Your task to perform on an android device: install app "Nova Launcher" Image 0: 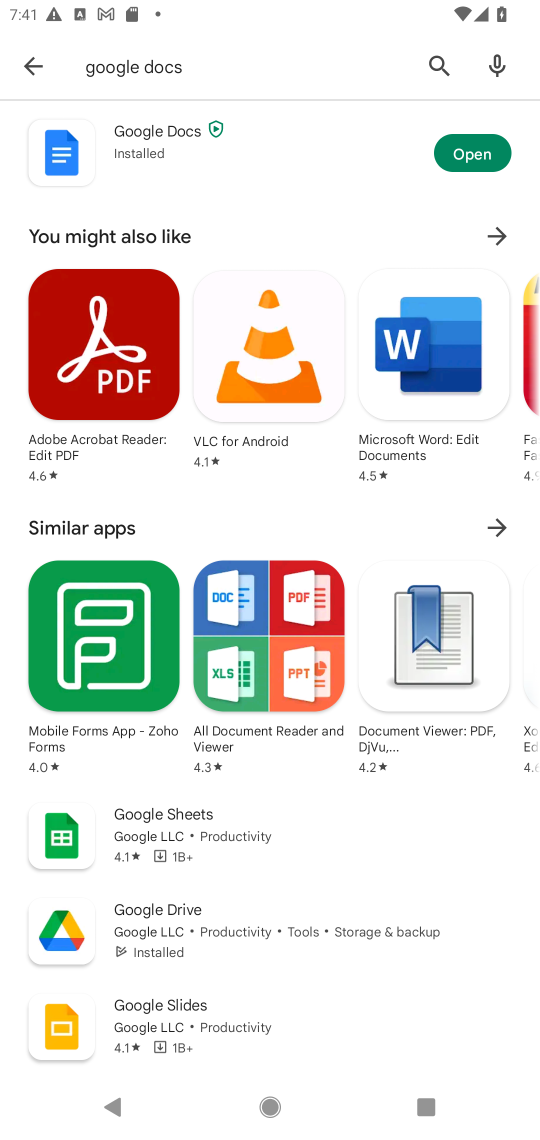
Step 0: click (432, 71)
Your task to perform on an android device: install app "Nova Launcher" Image 1: 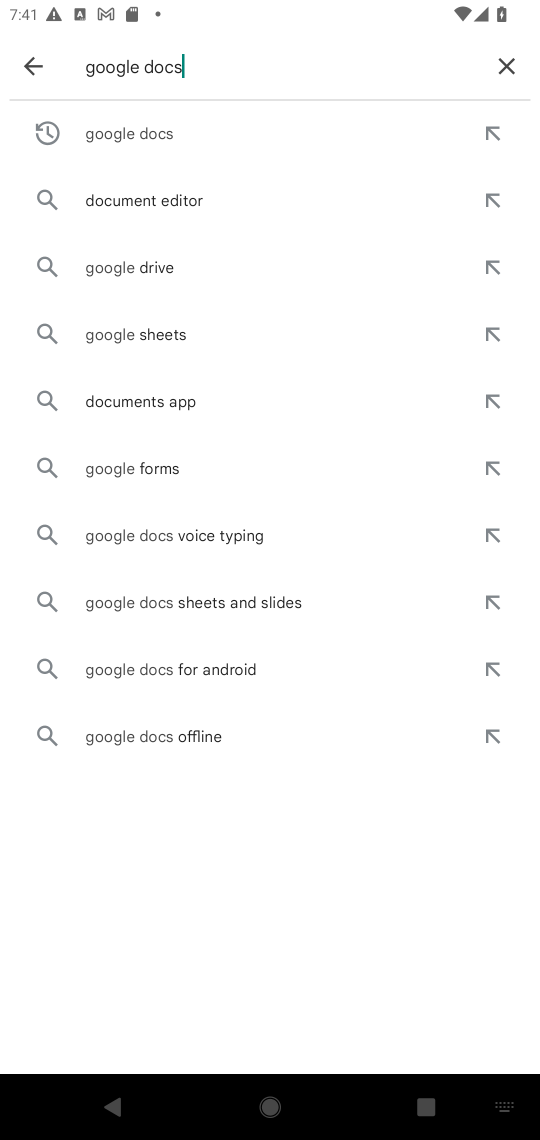
Step 1: click (502, 75)
Your task to perform on an android device: install app "Nova Launcher" Image 2: 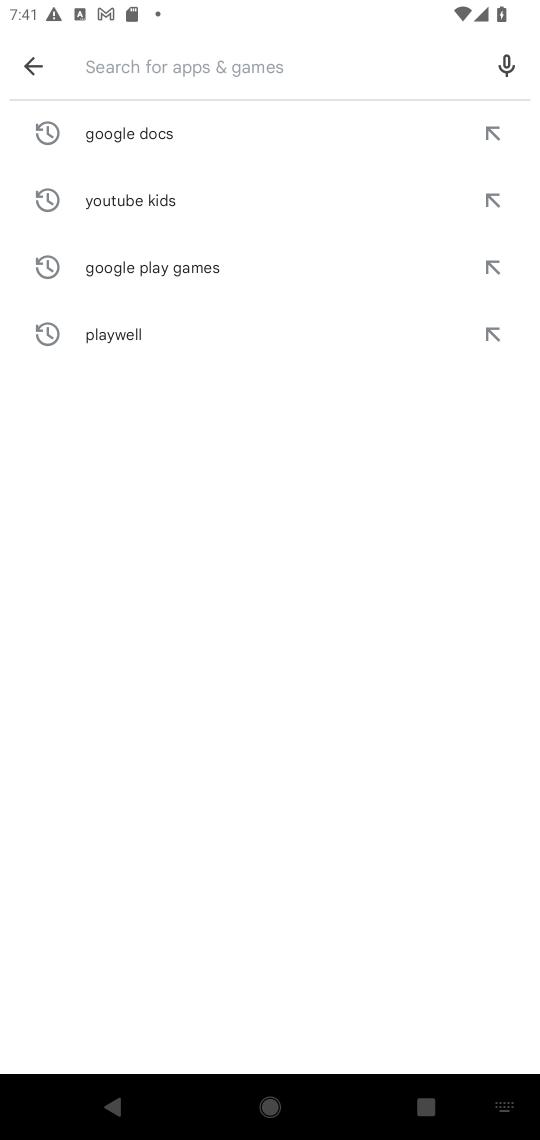
Step 2: type "Nova Launcher"
Your task to perform on an android device: install app "Nova Launcher" Image 3: 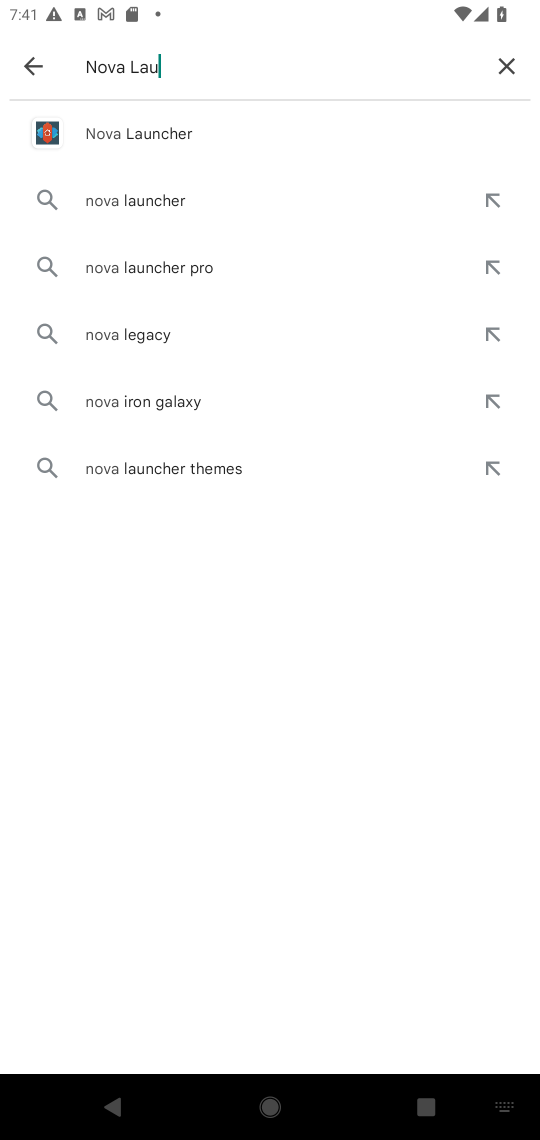
Step 3: type ""
Your task to perform on an android device: install app "Nova Launcher" Image 4: 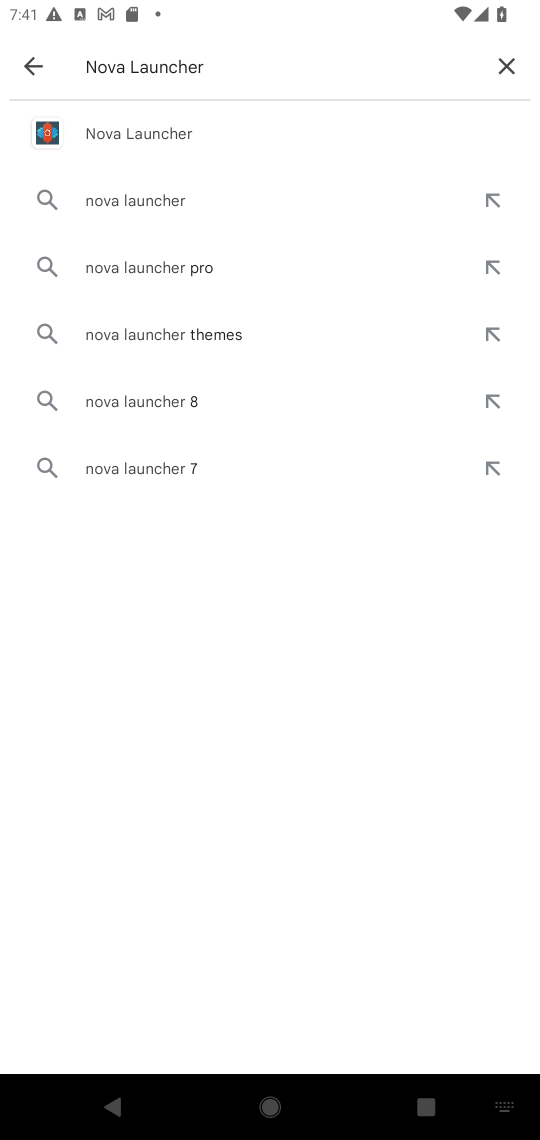
Step 4: click (204, 137)
Your task to perform on an android device: install app "Nova Launcher" Image 5: 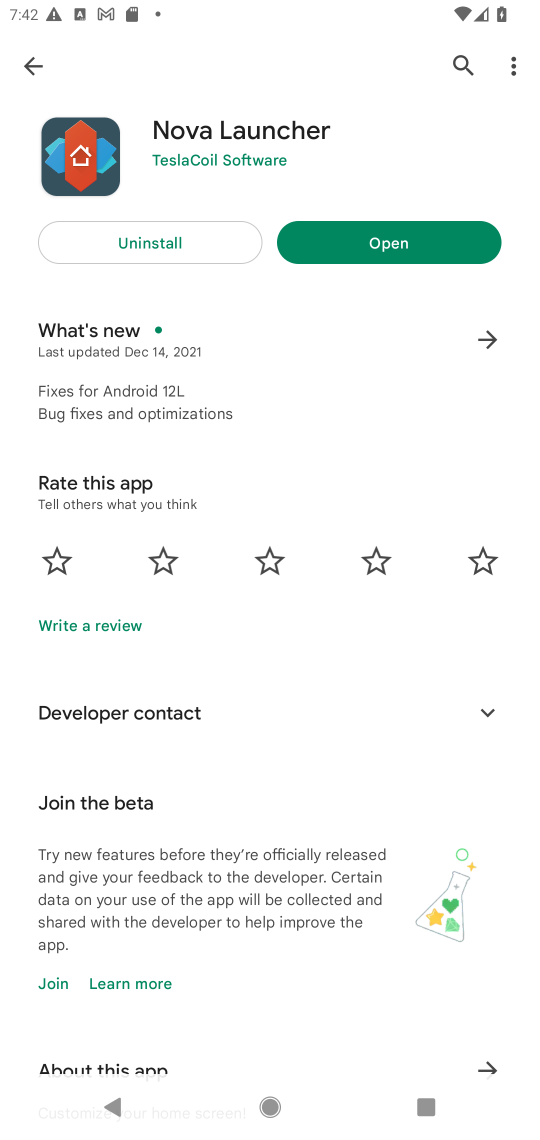
Step 5: task complete